Your task to perform on an android device: Show me productivity apps on the Play Store Image 0: 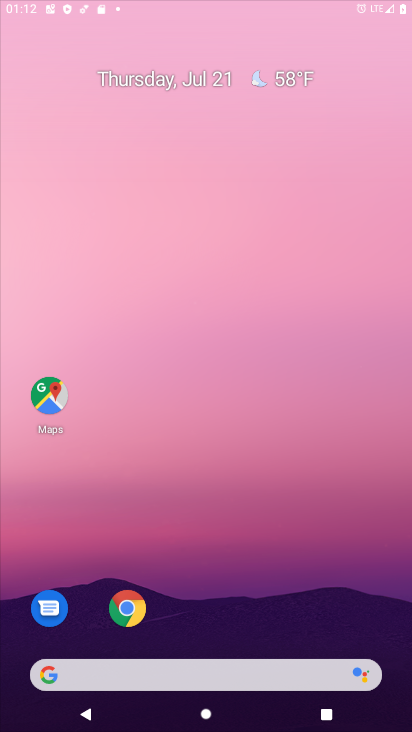
Step 0: press home button
Your task to perform on an android device: Show me productivity apps on the Play Store Image 1: 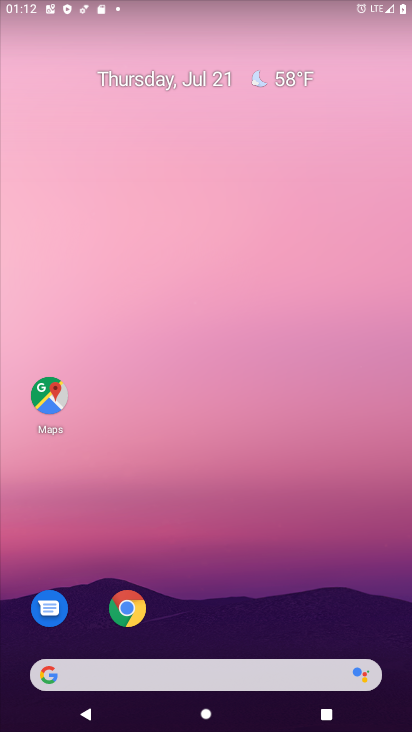
Step 1: click (49, 390)
Your task to perform on an android device: Show me productivity apps on the Play Store Image 2: 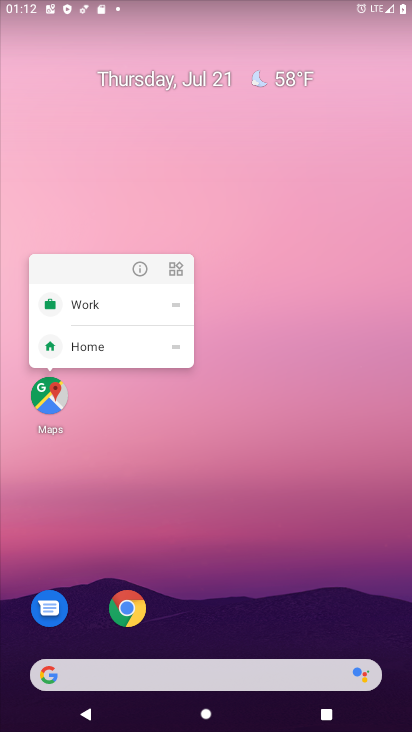
Step 2: click (48, 392)
Your task to perform on an android device: Show me productivity apps on the Play Store Image 3: 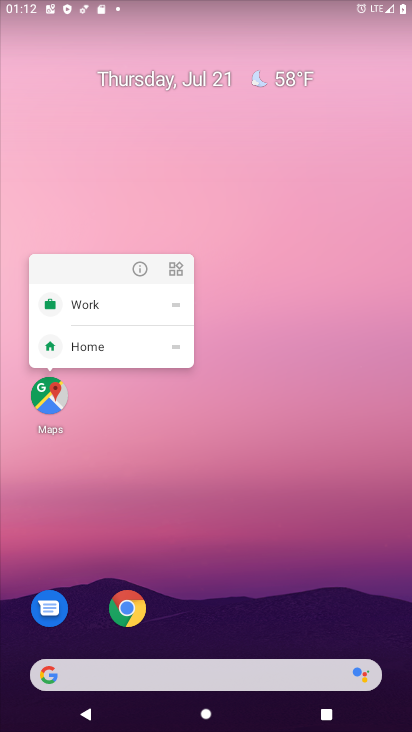
Step 3: click (233, 642)
Your task to perform on an android device: Show me productivity apps on the Play Store Image 4: 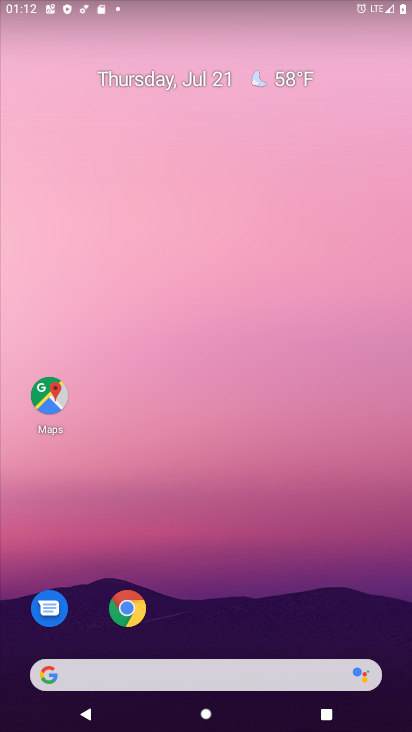
Step 4: drag from (227, 646) to (246, 120)
Your task to perform on an android device: Show me productivity apps on the Play Store Image 5: 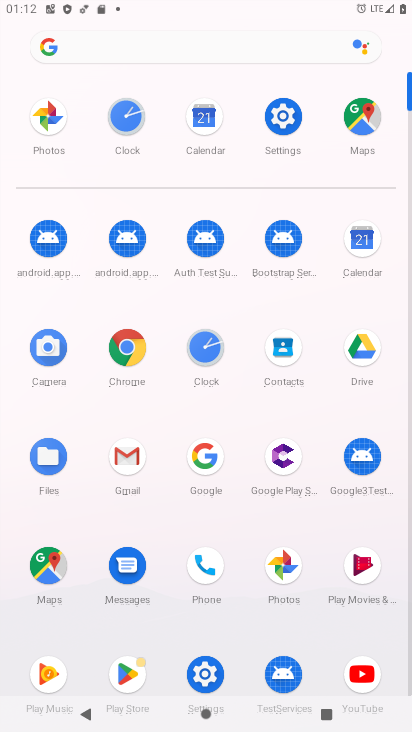
Step 5: click (127, 662)
Your task to perform on an android device: Show me productivity apps on the Play Store Image 6: 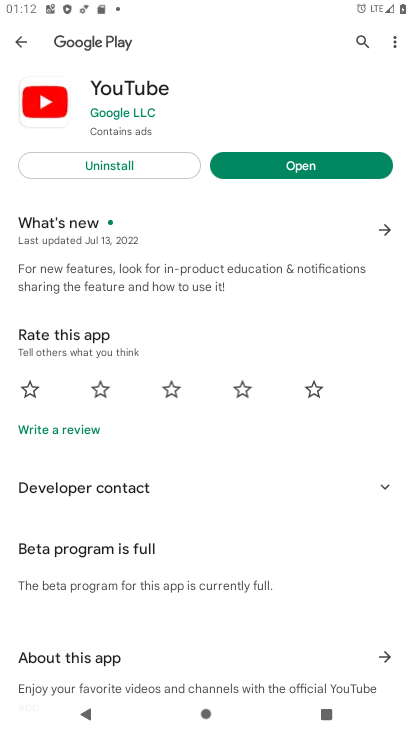
Step 6: click (16, 34)
Your task to perform on an android device: Show me productivity apps on the Play Store Image 7: 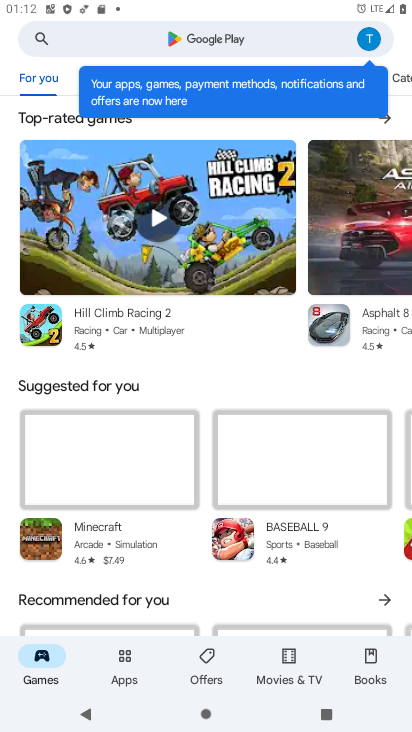
Step 7: click (124, 654)
Your task to perform on an android device: Show me productivity apps on the Play Store Image 8: 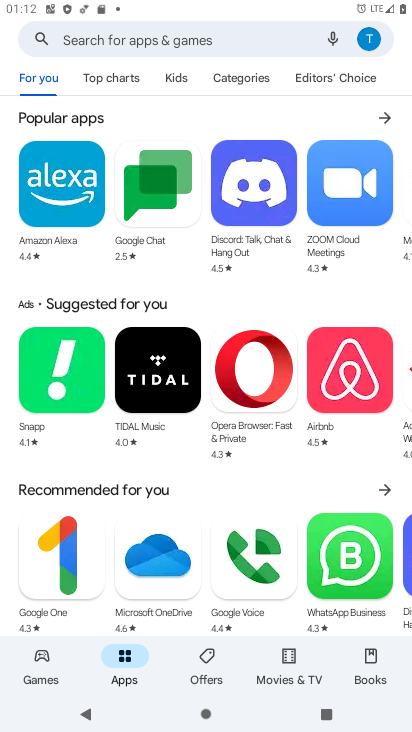
Step 8: click (237, 76)
Your task to perform on an android device: Show me productivity apps on the Play Store Image 9: 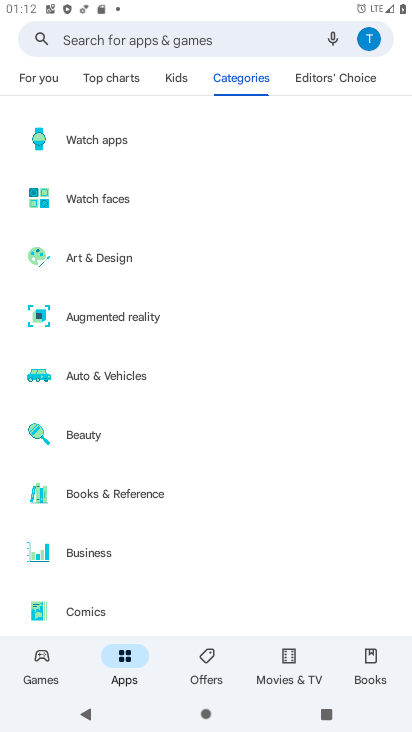
Step 9: drag from (151, 607) to (190, 92)
Your task to perform on an android device: Show me productivity apps on the Play Store Image 10: 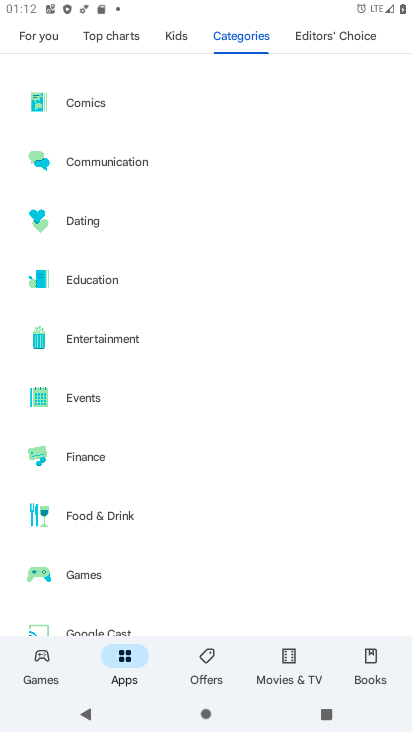
Step 10: drag from (169, 592) to (240, 119)
Your task to perform on an android device: Show me productivity apps on the Play Store Image 11: 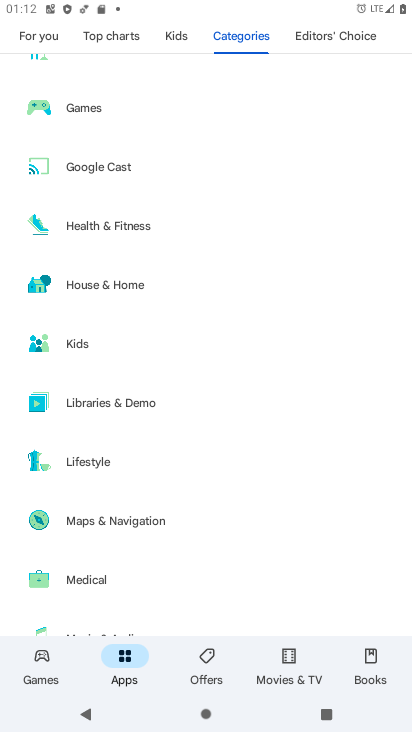
Step 11: drag from (169, 596) to (212, 106)
Your task to perform on an android device: Show me productivity apps on the Play Store Image 12: 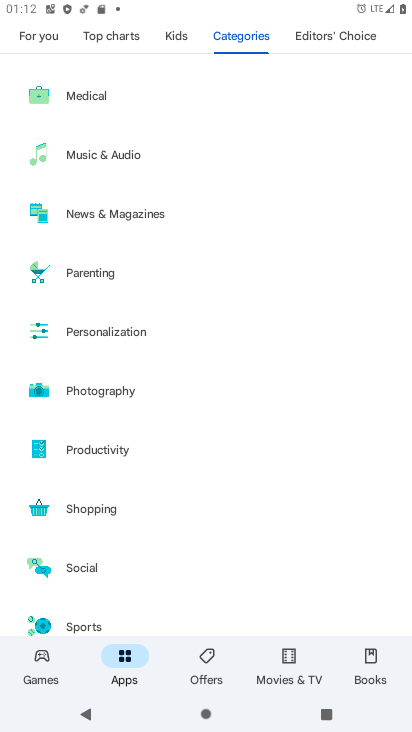
Step 12: click (137, 445)
Your task to perform on an android device: Show me productivity apps on the Play Store Image 13: 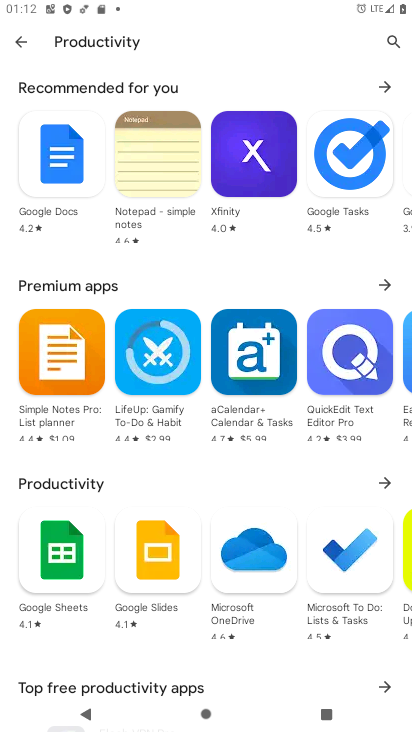
Step 13: click (380, 481)
Your task to perform on an android device: Show me productivity apps on the Play Store Image 14: 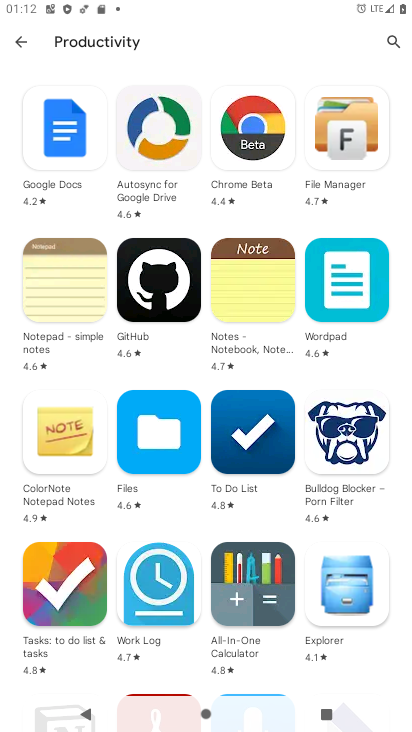
Step 14: task complete